Your task to perform on an android device: change timer sound Image 0: 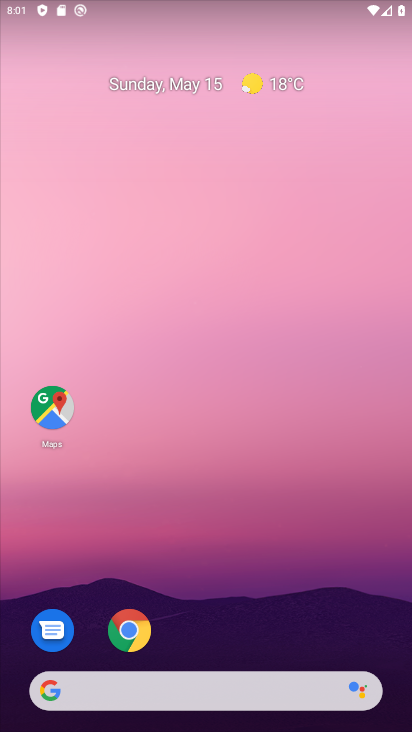
Step 0: drag from (177, 608) to (239, 256)
Your task to perform on an android device: change timer sound Image 1: 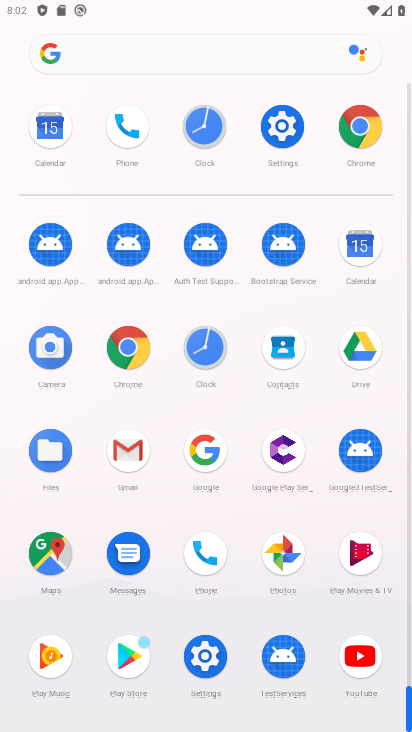
Step 1: click (206, 339)
Your task to perform on an android device: change timer sound Image 2: 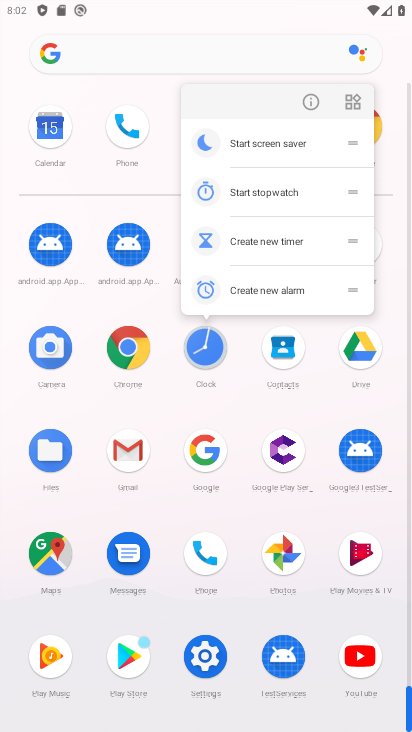
Step 2: click (302, 103)
Your task to perform on an android device: change timer sound Image 3: 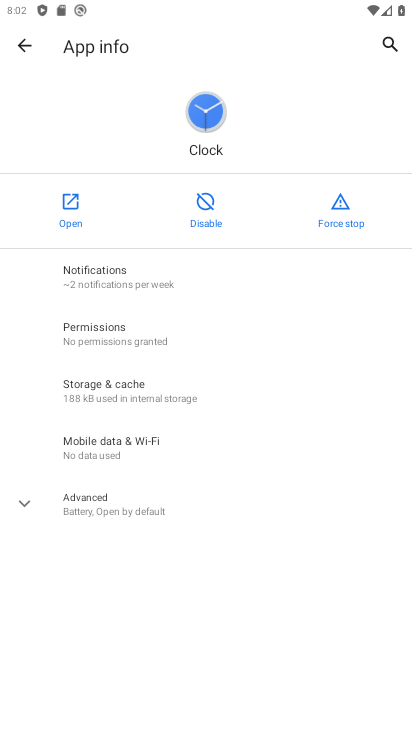
Step 3: click (52, 223)
Your task to perform on an android device: change timer sound Image 4: 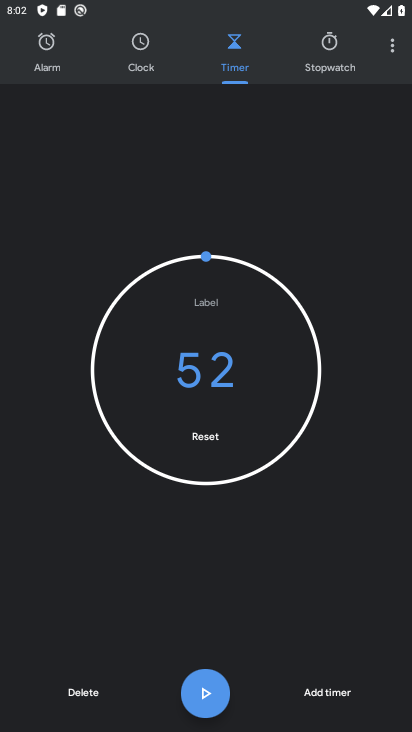
Step 4: click (336, 53)
Your task to perform on an android device: change timer sound Image 5: 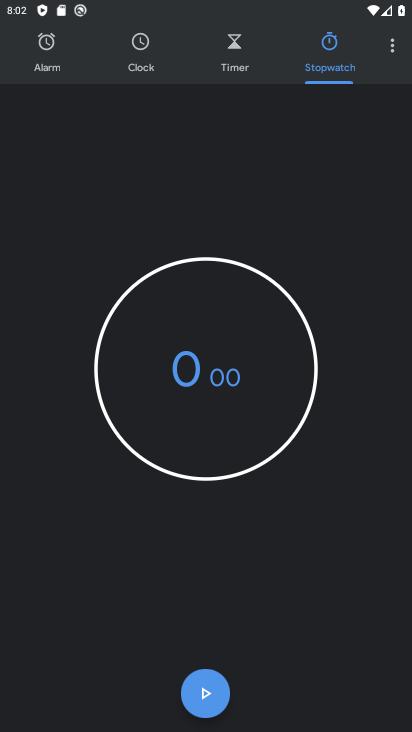
Step 5: click (382, 60)
Your task to perform on an android device: change timer sound Image 6: 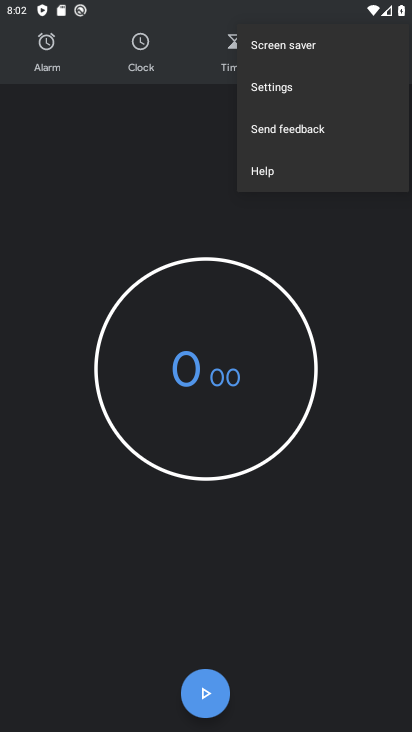
Step 6: click (306, 84)
Your task to perform on an android device: change timer sound Image 7: 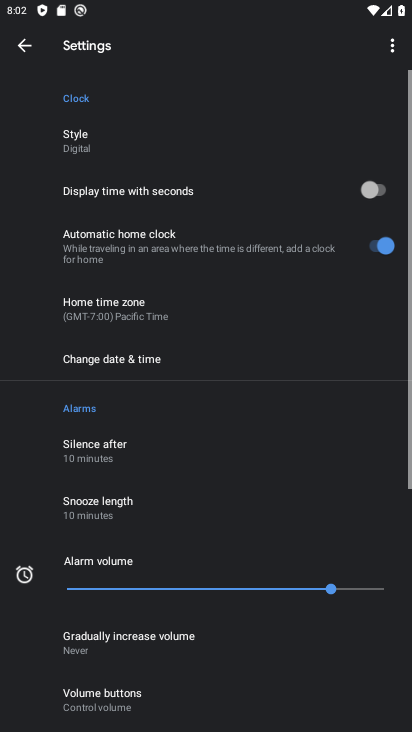
Step 7: drag from (185, 357) to (248, 173)
Your task to perform on an android device: change timer sound Image 8: 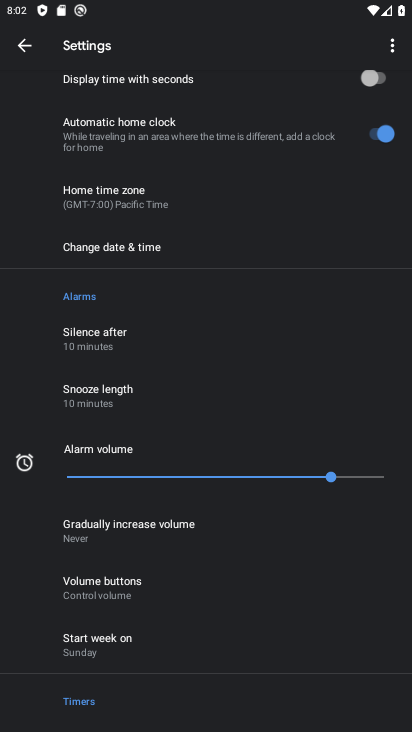
Step 8: drag from (162, 621) to (246, 229)
Your task to perform on an android device: change timer sound Image 9: 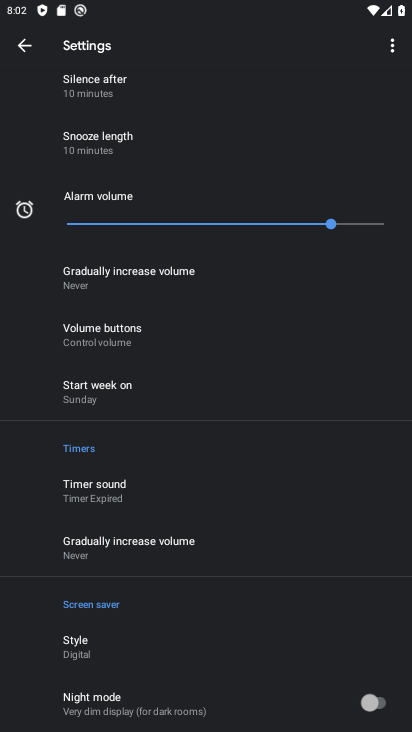
Step 9: click (121, 501)
Your task to perform on an android device: change timer sound Image 10: 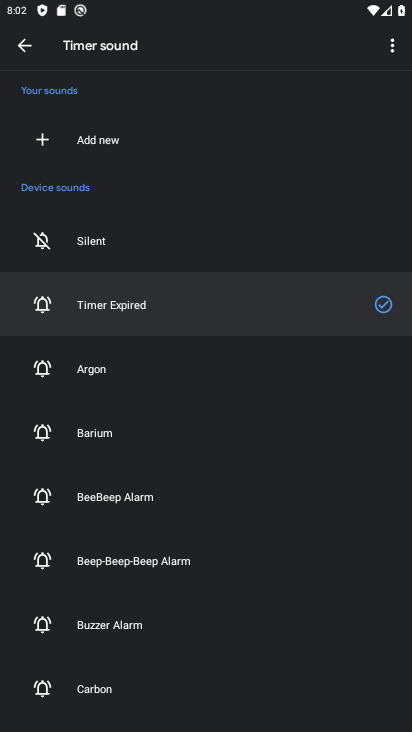
Step 10: click (228, 397)
Your task to perform on an android device: change timer sound Image 11: 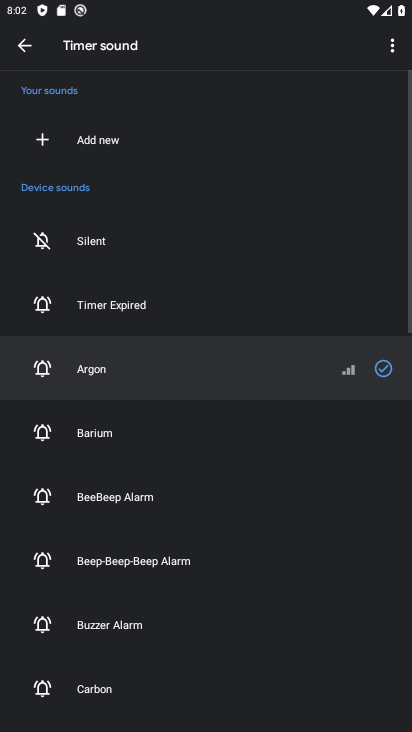
Step 11: task complete